Your task to perform on an android device: Go to location settings Image 0: 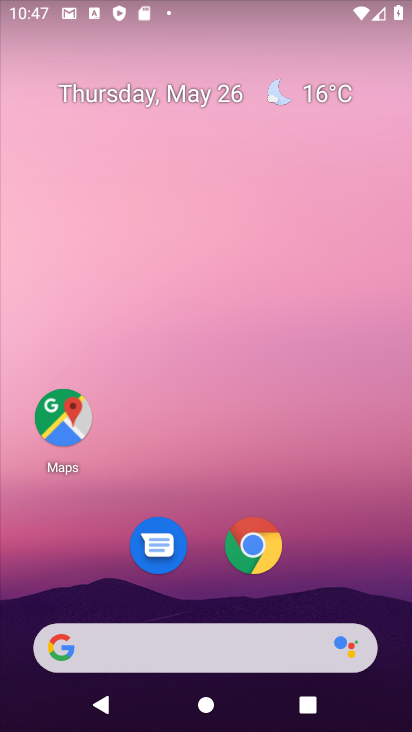
Step 0: drag from (305, 610) to (280, 83)
Your task to perform on an android device: Go to location settings Image 1: 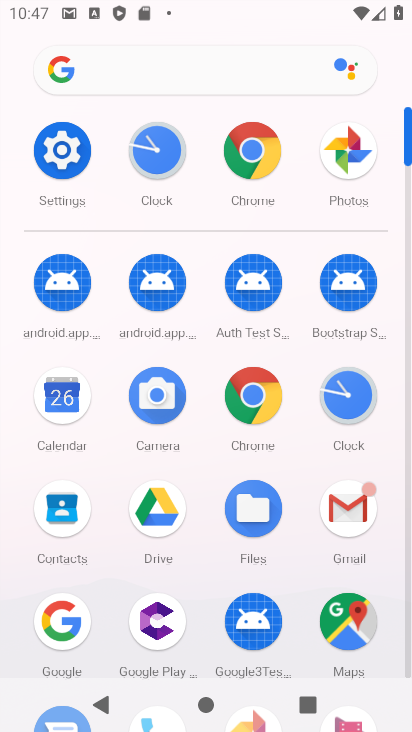
Step 1: click (60, 147)
Your task to perform on an android device: Go to location settings Image 2: 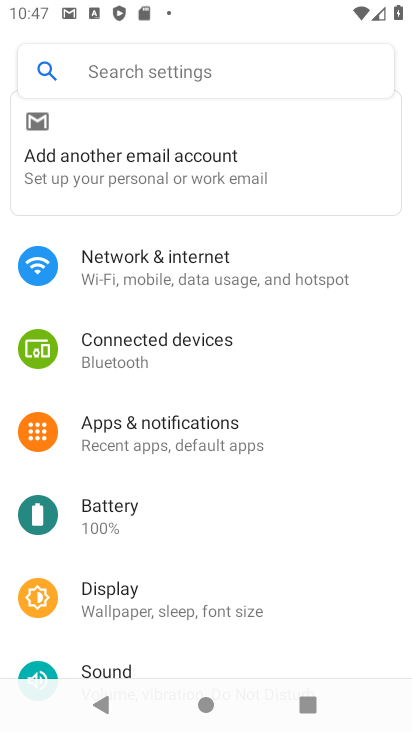
Step 2: drag from (261, 545) to (265, 216)
Your task to perform on an android device: Go to location settings Image 3: 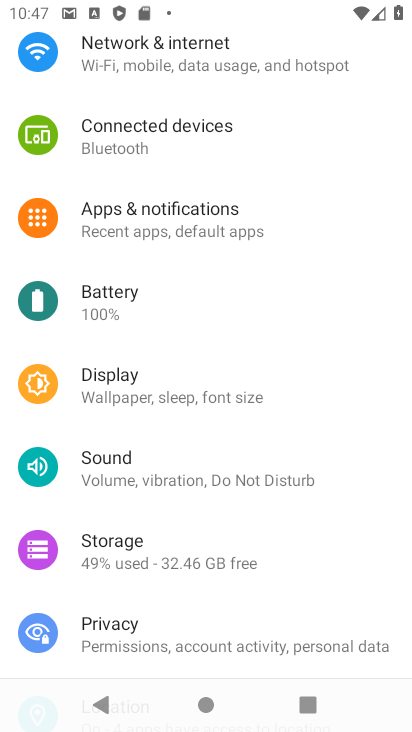
Step 3: drag from (323, 590) to (303, 118)
Your task to perform on an android device: Go to location settings Image 4: 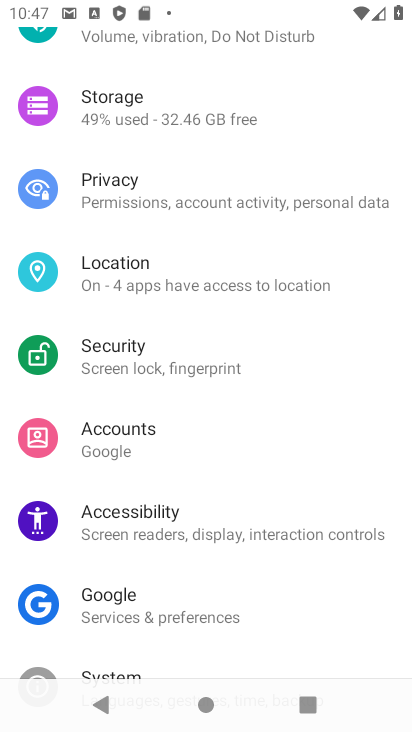
Step 4: click (114, 274)
Your task to perform on an android device: Go to location settings Image 5: 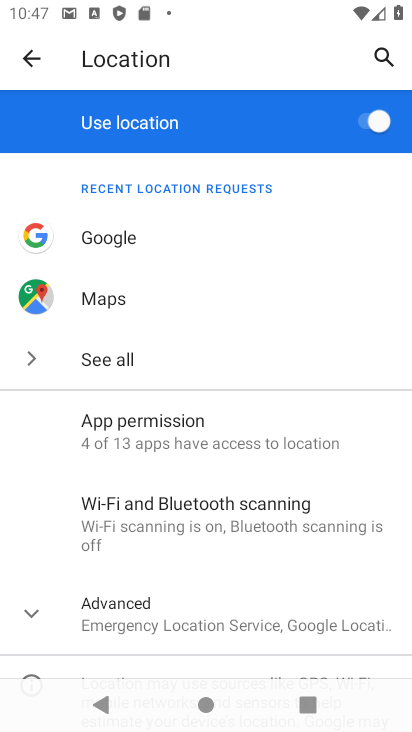
Step 5: task complete